Your task to perform on an android device: Open the phone app and click the voicemail tab. Image 0: 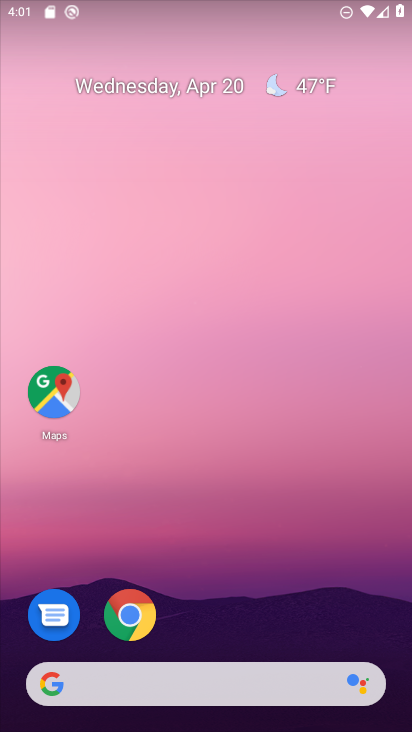
Step 0: drag from (256, 586) to (237, 57)
Your task to perform on an android device: Open the phone app and click the voicemail tab. Image 1: 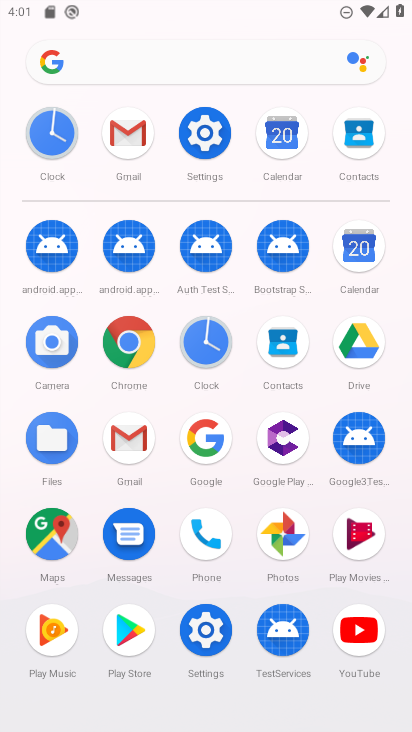
Step 1: click (205, 533)
Your task to perform on an android device: Open the phone app and click the voicemail tab. Image 2: 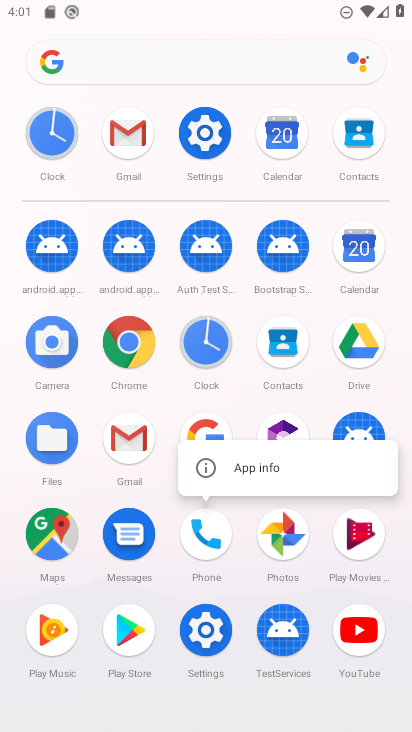
Step 2: click (205, 527)
Your task to perform on an android device: Open the phone app and click the voicemail tab. Image 3: 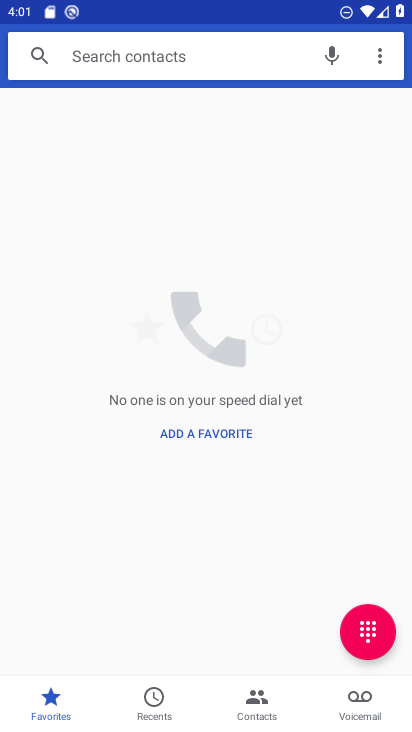
Step 3: click (364, 709)
Your task to perform on an android device: Open the phone app and click the voicemail tab. Image 4: 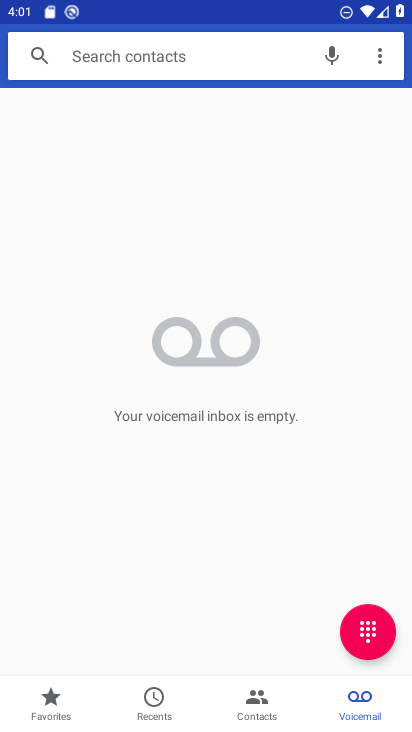
Step 4: task complete